Your task to perform on an android device: open app "ZOOM Cloud Meetings" (install if not already installed) and enter user name: "bauxite@icloud.com" and password: "dim" Image 0: 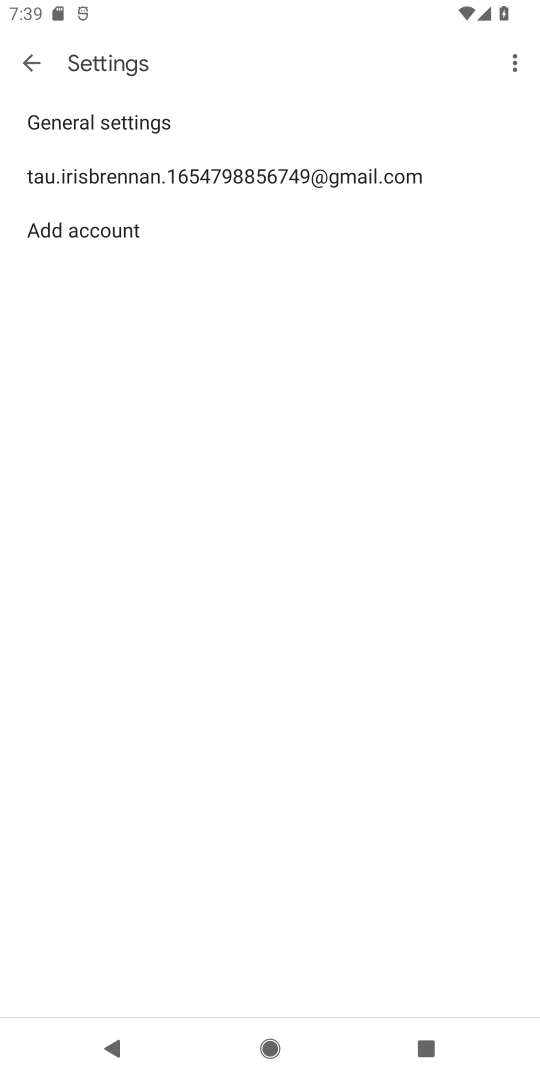
Step 0: press home button
Your task to perform on an android device: open app "ZOOM Cloud Meetings" (install if not already installed) and enter user name: "bauxite@icloud.com" and password: "dim" Image 1: 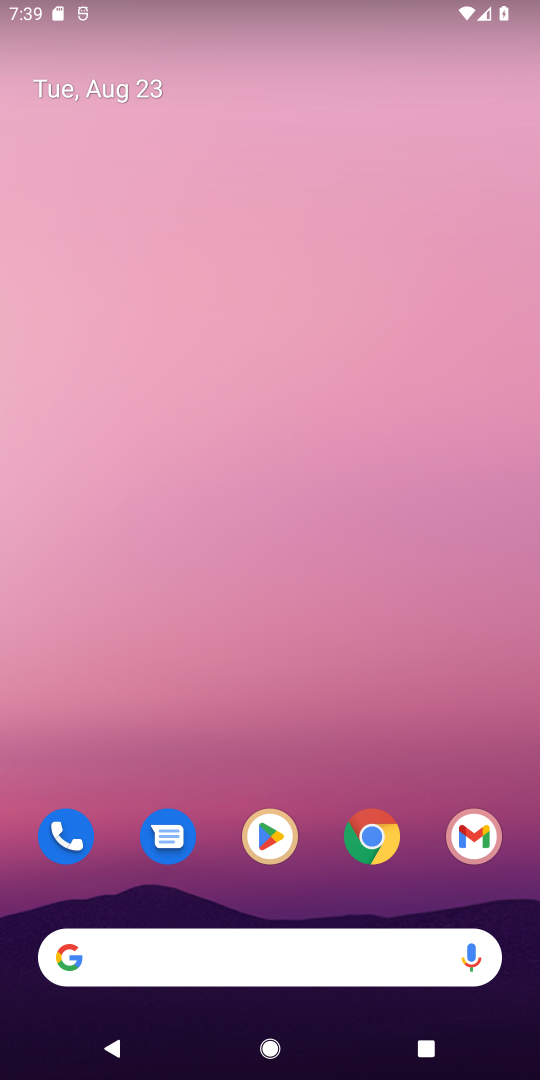
Step 1: click (265, 834)
Your task to perform on an android device: open app "ZOOM Cloud Meetings" (install if not already installed) and enter user name: "bauxite@icloud.com" and password: "dim" Image 2: 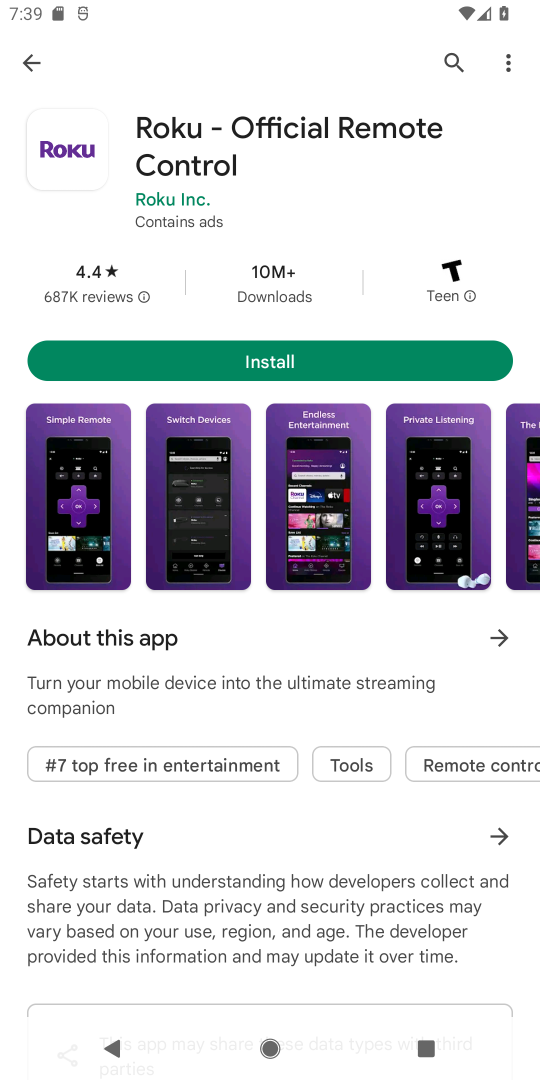
Step 2: click (450, 65)
Your task to perform on an android device: open app "ZOOM Cloud Meetings" (install if not already installed) and enter user name: "bauxite@icloud.com" and password: "dim" Image 3: 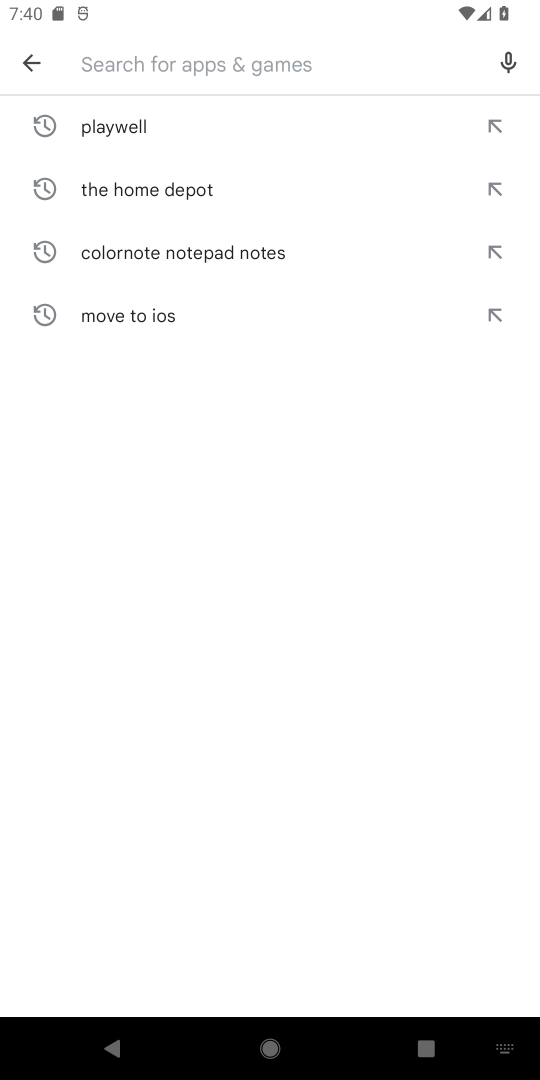
Step 3: type "ZOOM Cloud Meetings"
Your task to perform on an android device: open app "ZOOM Cloud Meetings" (install if not already installed) and enter user name: "bauxite@icloud.com" and password: "dim" Image 4: 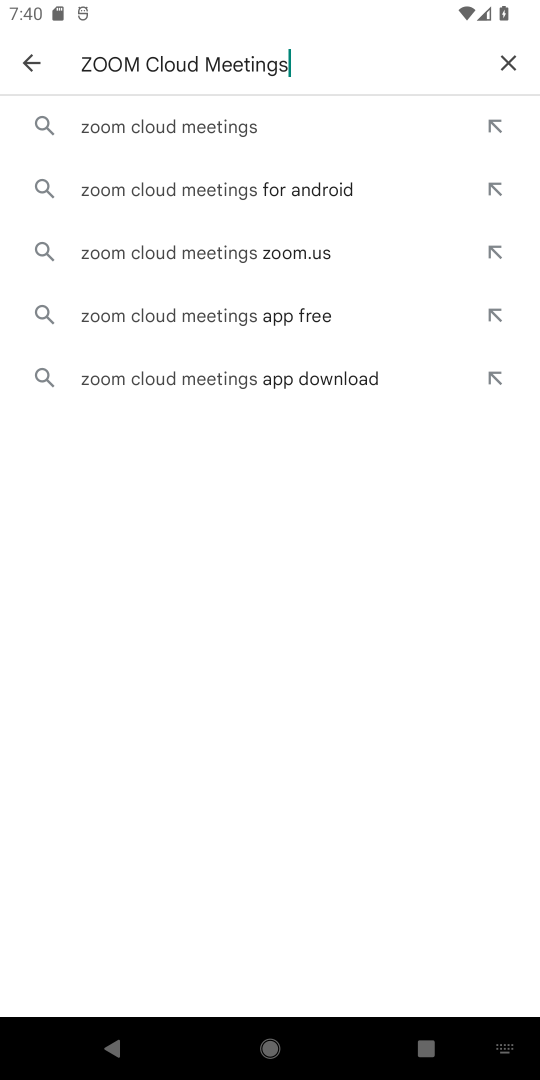
Step 4: click (198, 116)
Your task to perform on an android device: open app "ZOOM Cloud Meetings" (install if not already installed) and enter user name: "bauxite@icloud.com" and password: "dim" Image 5: 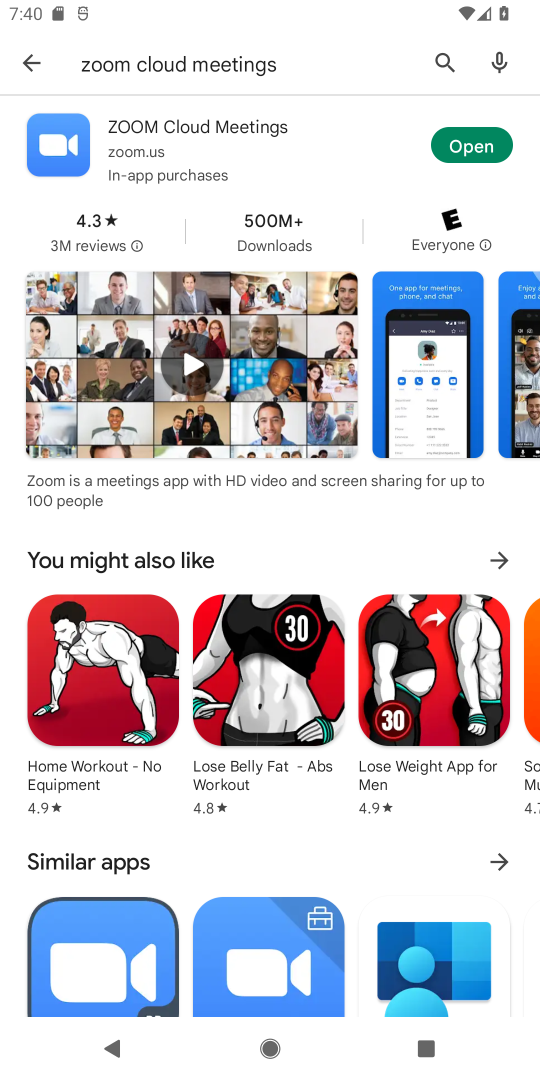
Step 5: click (494, 141)
Your task to perform on an android device: open app "ZOOM Cloud Meetings" (install if not already installed) and enter user name: "bauxite@icloud.com" and password: "dim" Image 6: 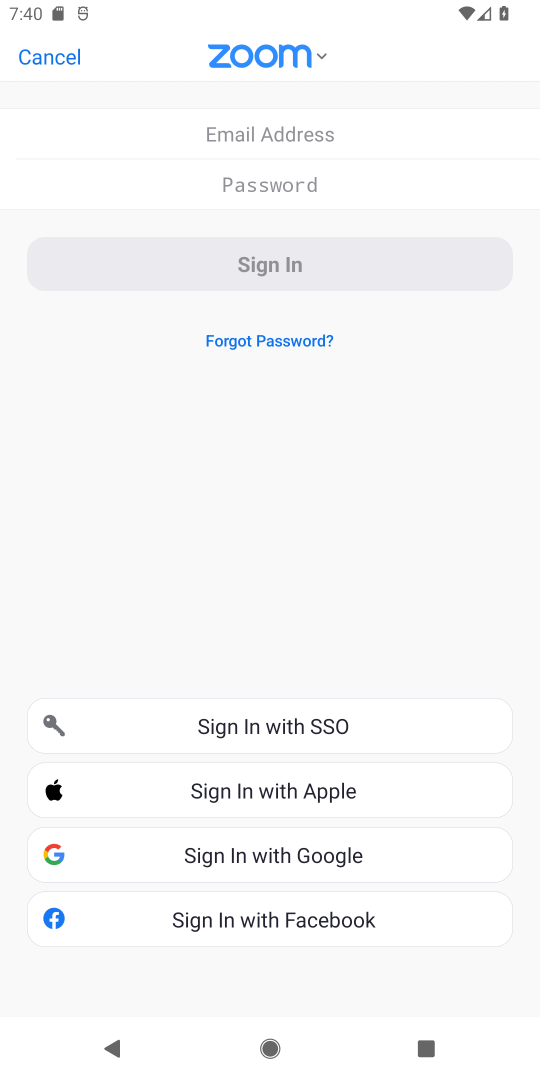
Step 6: click (238, 137)
Your task to perform on an android device: open app "ZOOM Cloud Meetings" (install if not already installed) and enter user name: "bauxite@icloud.com" and password: "dim" Image 7: 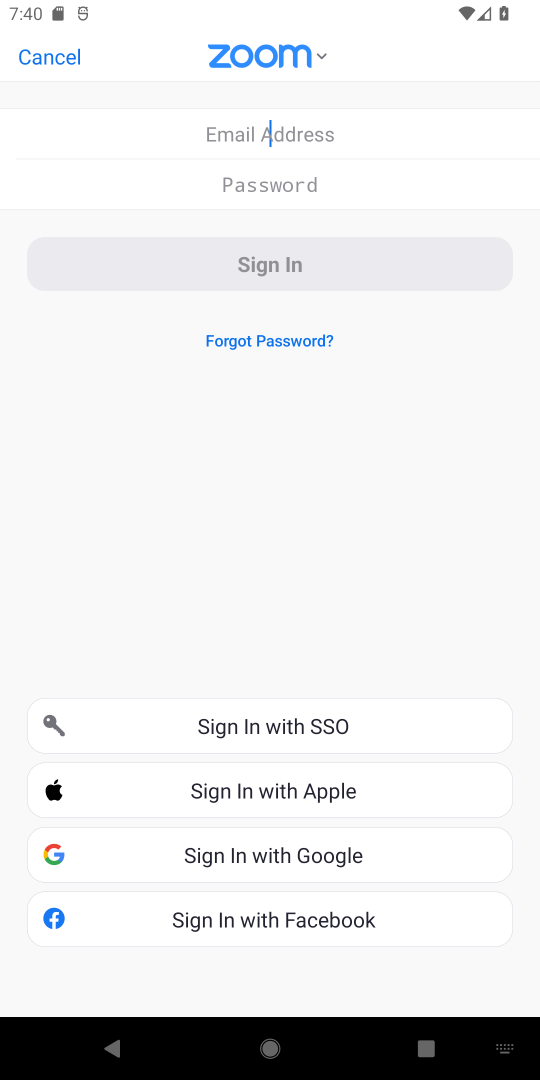
Step 7: type "bauxite@icloud.com"
Your task to perform on an android device: open app "ZOOM Cloud Meetings" (install if not already installed) and enter user name: "bauxite@icloud.com" and password: "dim" Image 8: 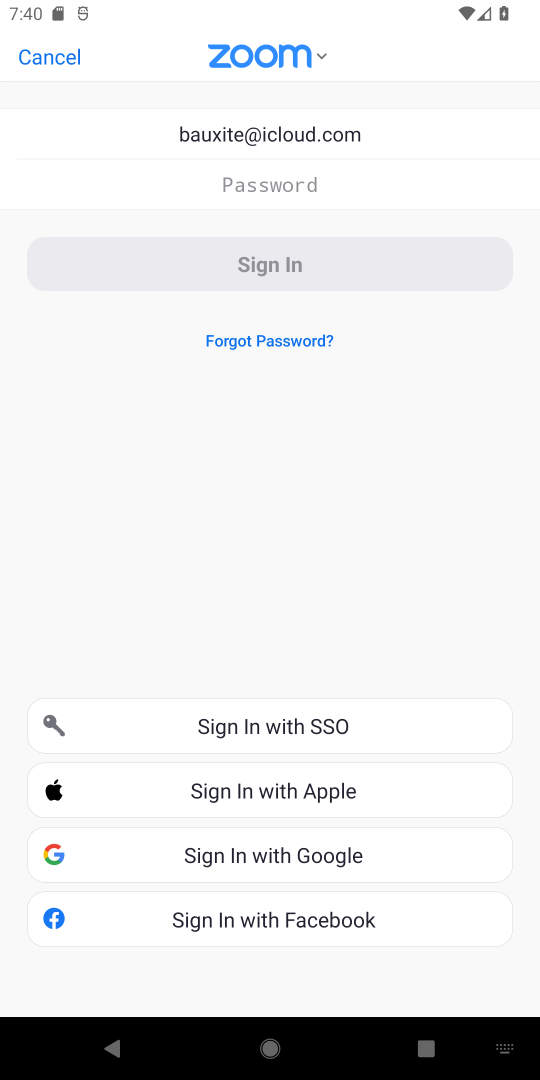
Step 8: click (252, 189)
Your task to perform on an android device: open app "ZOOM Cloud Meetings" (install if not already installed) and enter user name: "bauxite@icloud.com" and password: "dim" Image 9: 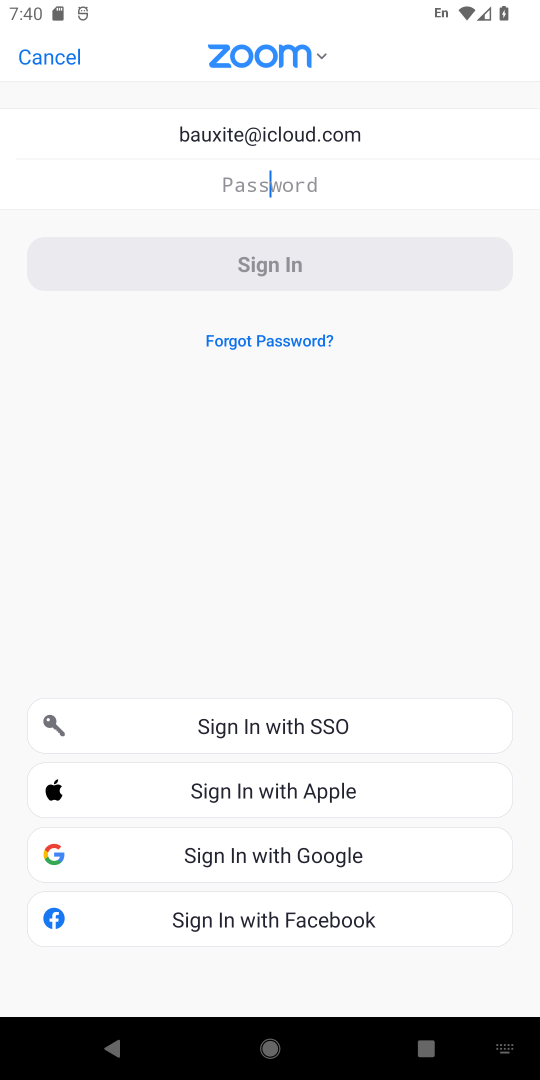
Step 9: type "dim"
Your task to perform on an android device: open app "ZOOM Cloud Meetings" (install if not already installed) and enter user name: "bauxite@icloud.com" and password: "dim" Image 10: 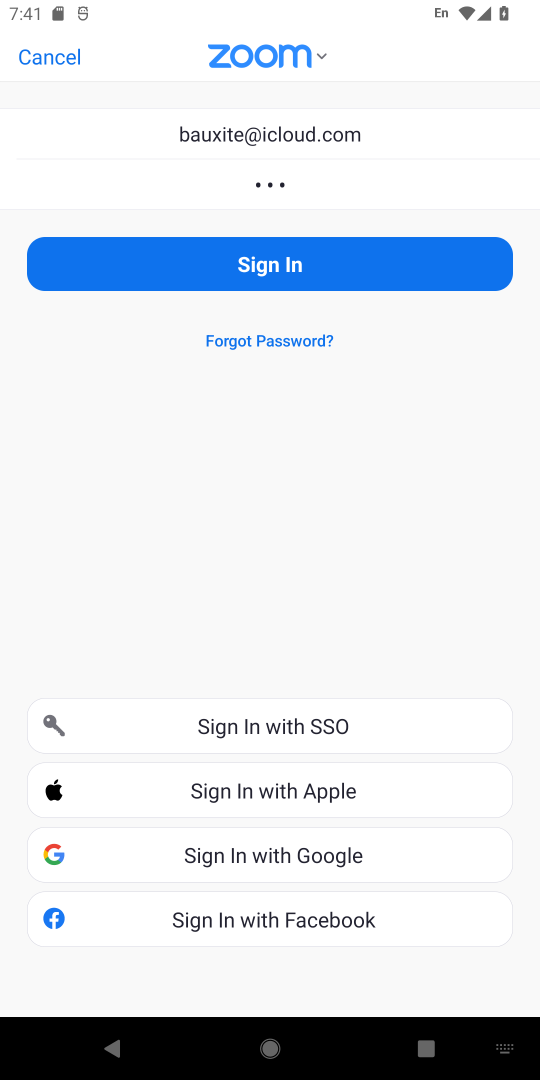
Step 10: task complete